Your task to perform on an android device: toggle airplane mode Image 0: 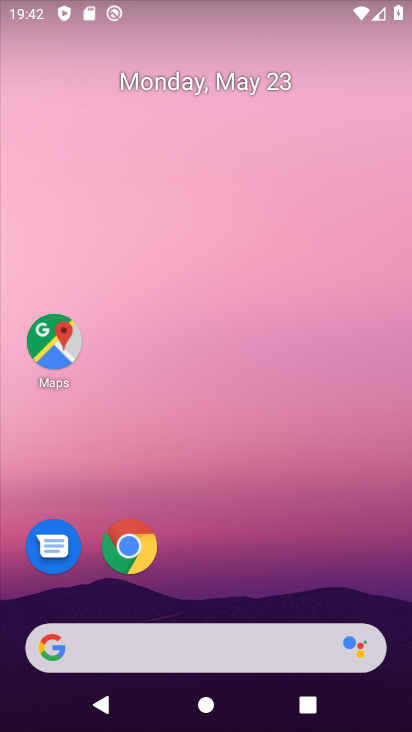
Step 0: drag from (390, 602) to (378, 244)
Your task to perform on an android device: toggle airplane mode Image 1: 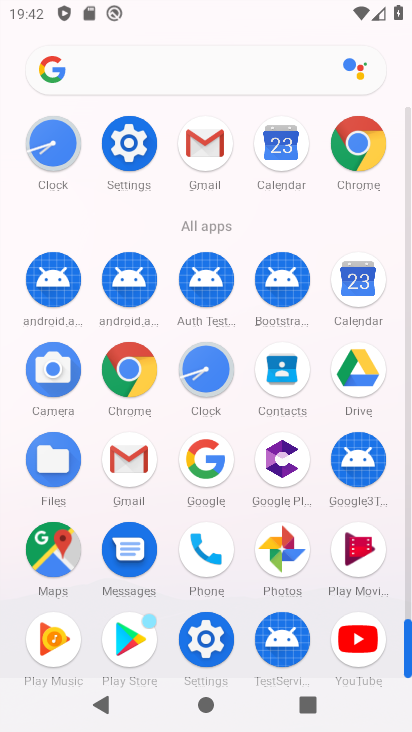
Step 1: drag from (393, 589) to (391, 468)
Your task to perform on an android device: toggle airplane mode Image 2: 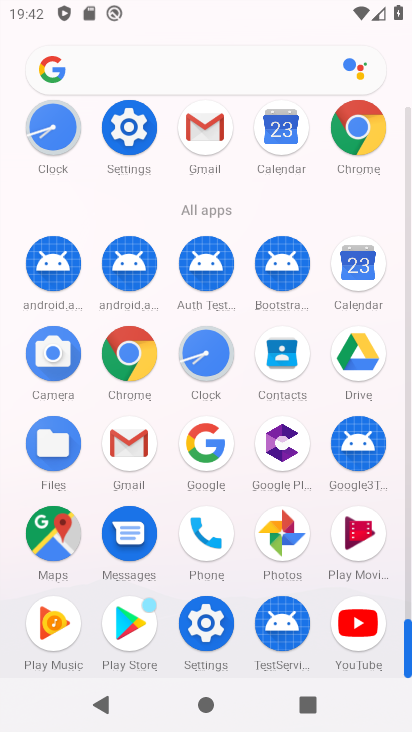
Step 2: click (208, 631)
Your task to perform on an android device: toggle airplane mode Image 3: 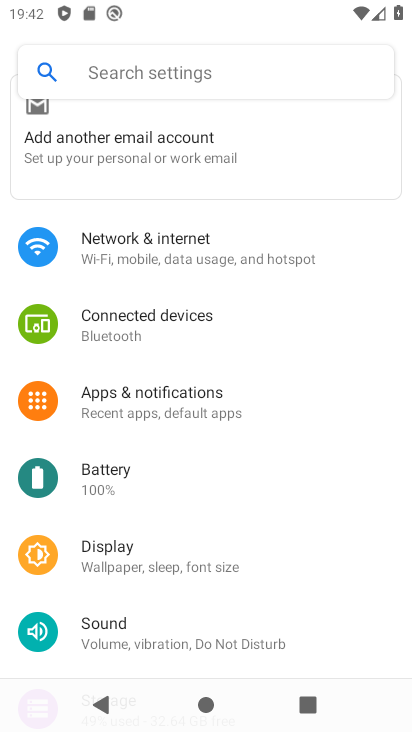
Step 3: drag from (380, 613) to (385, 513)
Your task to perform on an android device: toggle airplane mode Image 4: 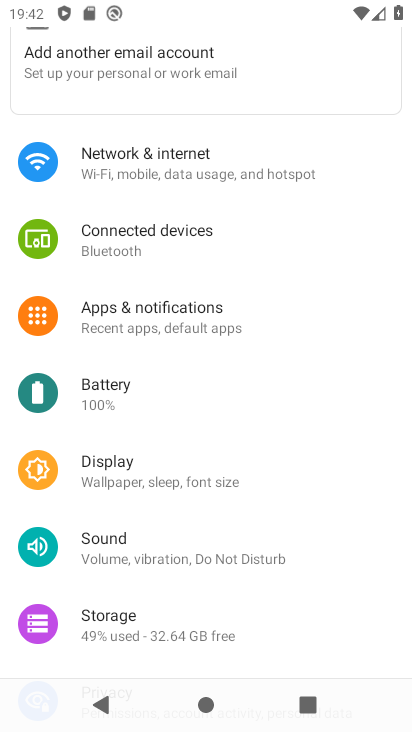
Step 4: drag from (367, 644) to (369, 547)
Your task to perform on an android device: toggle airplane mode Image 5: 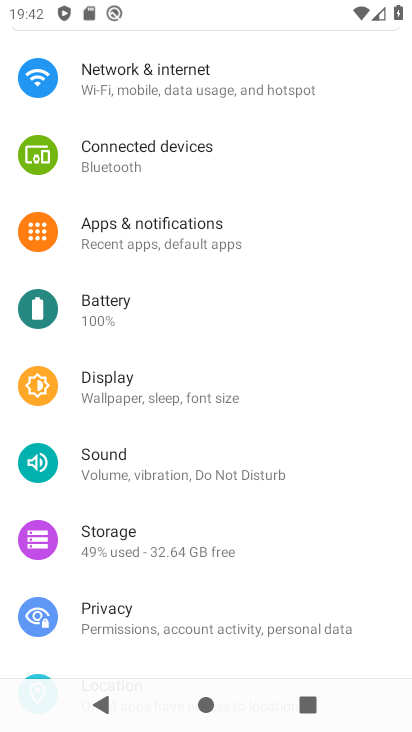
Step 5: drag from (379, 648) to (380, 547)
Your task to perform on an android device: toggle airplane mode Image 6: 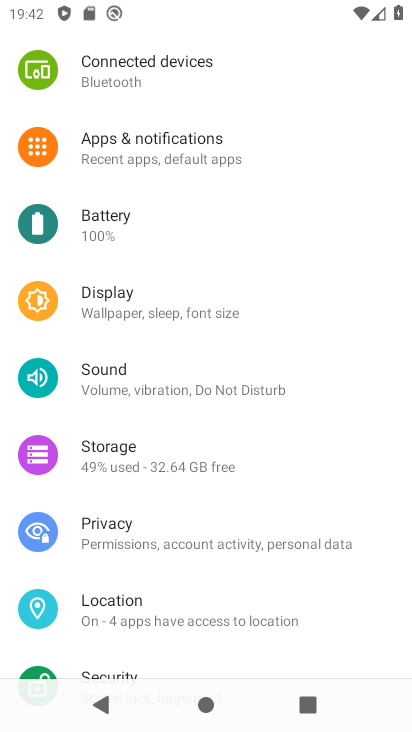
Step 6: drag from (371, 642) to (372, 528)
Your task to perform on an android device: toggle airplane mode Image 7: 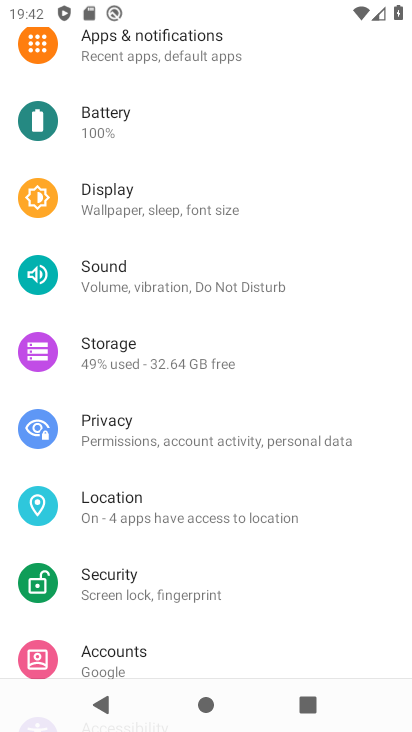
Step 7: drag from (373, 642) to (371, 535)
Your task to perform on an android device: toggle airplane mode Image 8: 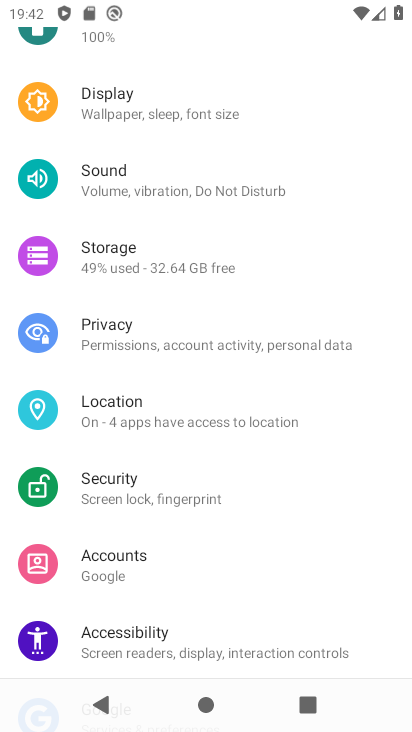
Step 8: drag from (372, 646) to (375, 545)
Your task to perform on an android device: toggle airplane mode Image 9: 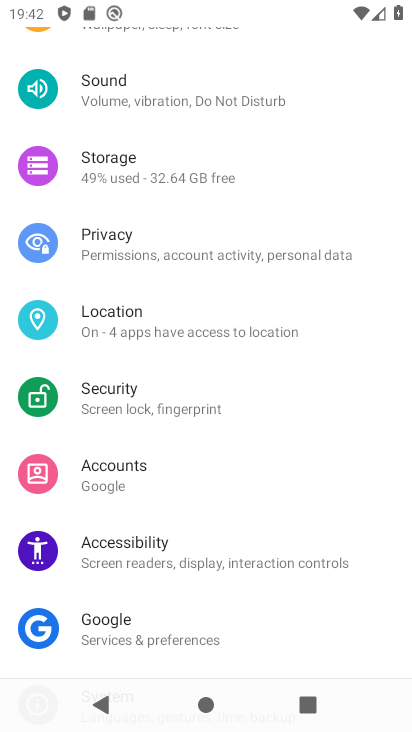
Step 9: drag from (366, 418) to (369, 542)
Your task to perform on an android device: toggle airplane mode Image 10: 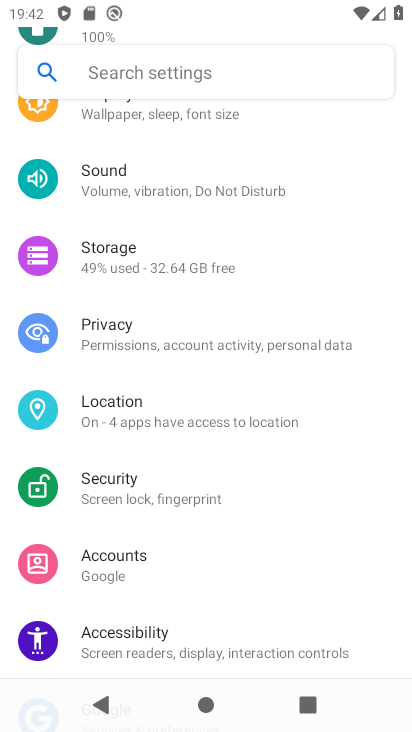
Step 10: drag from (382, 405) to (383, 505)
Your task to perform on an android device: toggle airplane mode Image 11: 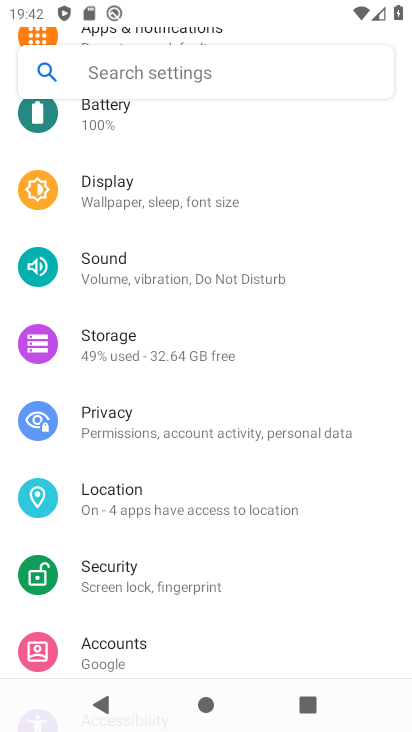
Step 11: drag from (382, 383) to (368, 488)
Your task to perform on an android device: toggle airplane mode Image 12: 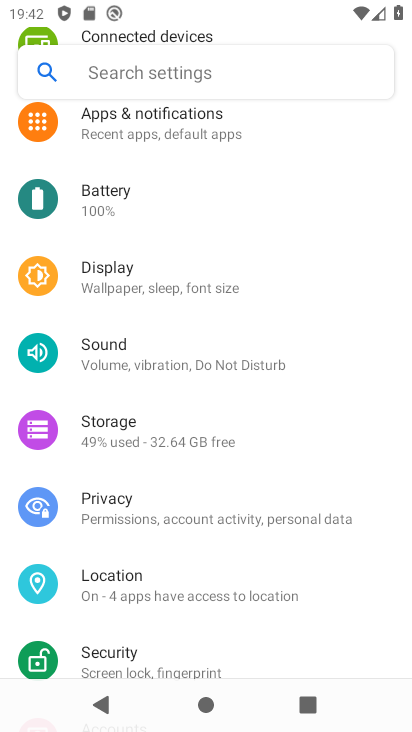
Step 12: drag from (375, 377) to (369, 472)
Your task to perform on an android device: toggle airplane mode Image 13: 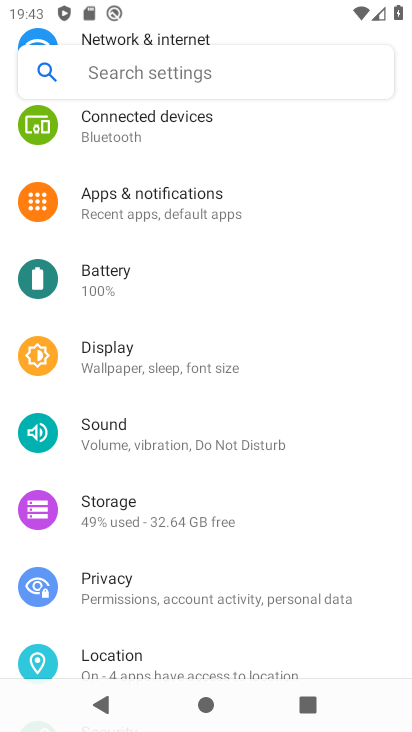
Step 13: drag from (377, 319) to (377, 416)
Your task to perform on an android device: toggle airplane mode Image 14: 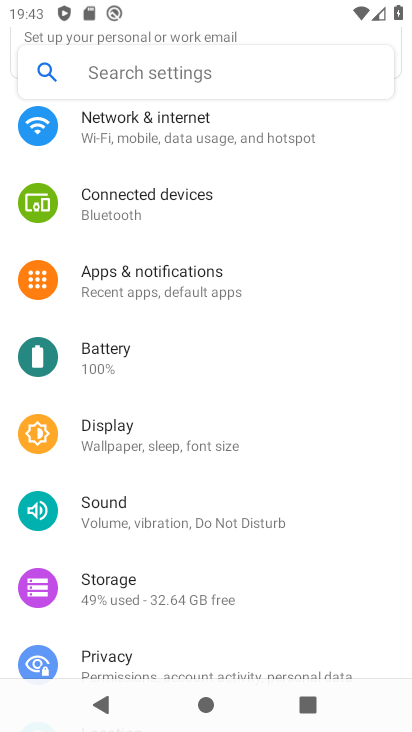
Step 14: drag from (387, 317) to (391, 394)
Your task to perform on an android device: toggle airplane mode Image 15: 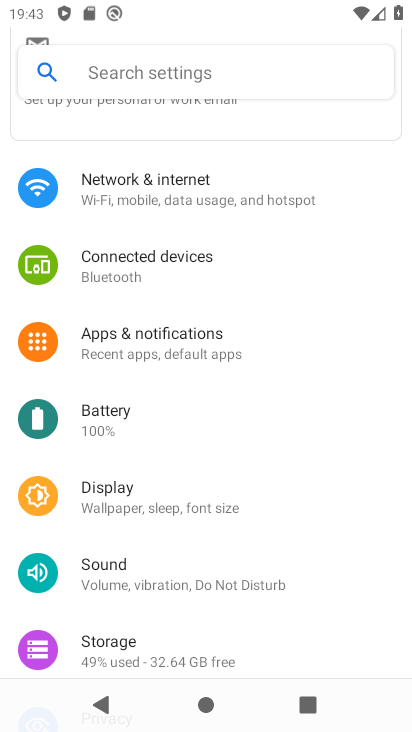
Step 15: drag from (387, 317) to (380, 449)
Your task to perform on an android device: toggle airplane mode Image 16: 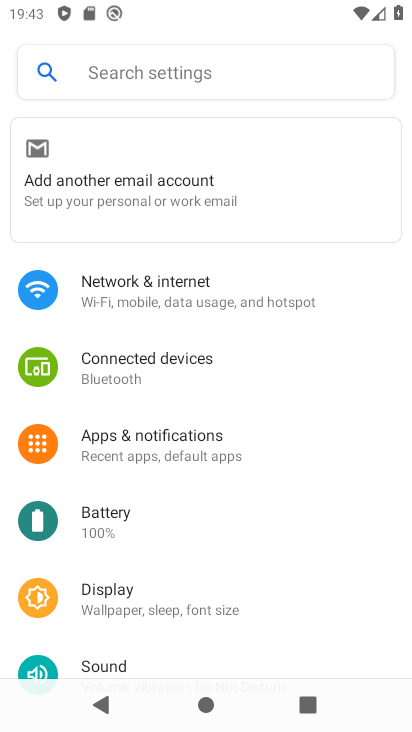
Step 16: drag from (382, 332) to (356, 473)
Your task to perform on an android device: toggle airplane mode Image 17: 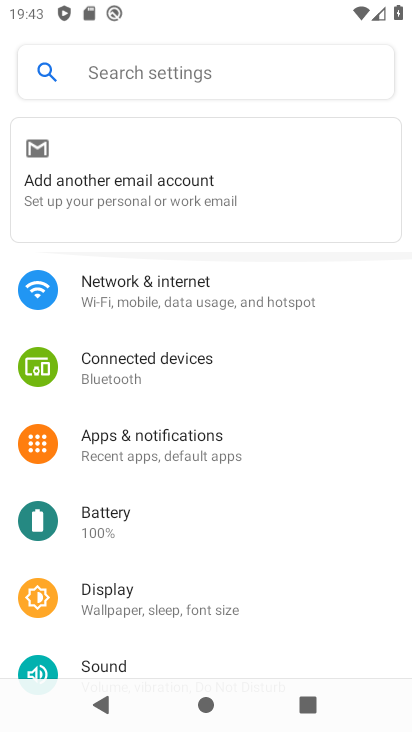
Step 17: click (325, 288)
Your task to perform on an android device: toggle airplane mode Image 18: 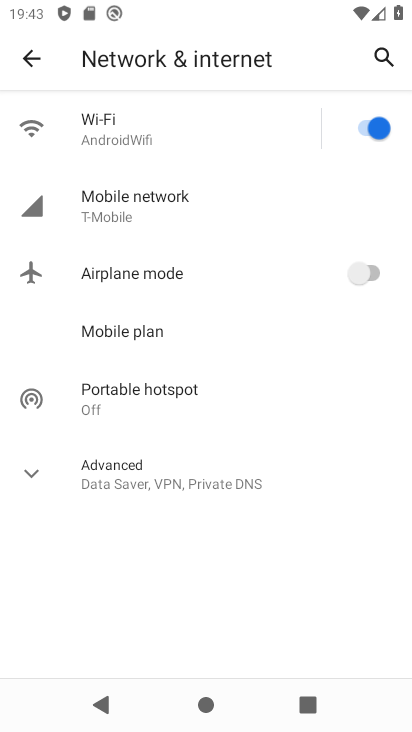
Step 18: click (360, 287)
Your task to perform on an android device: toggle airplane mode Image 19: 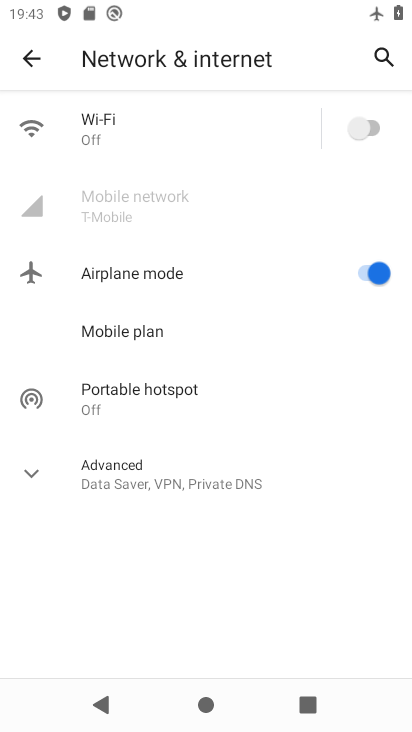
Step 19: task complete